Your task to perform on an android device: Do I have any events this weekend? Image 0: 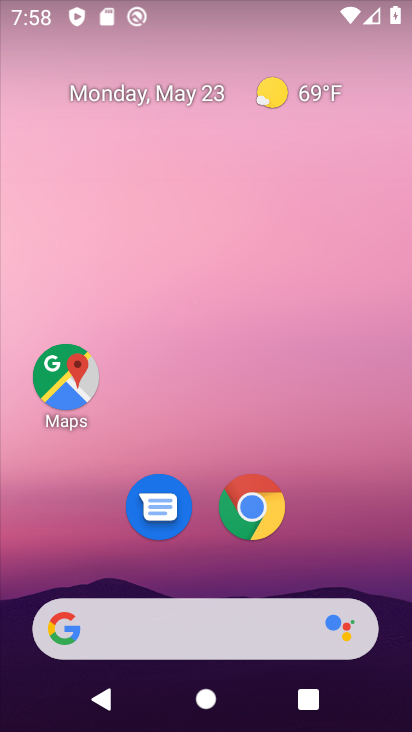
Step 0: drag from (354, 582) to (377, 2)
Your task to perform on an android device: Do I have any events this weekend? Image 1: 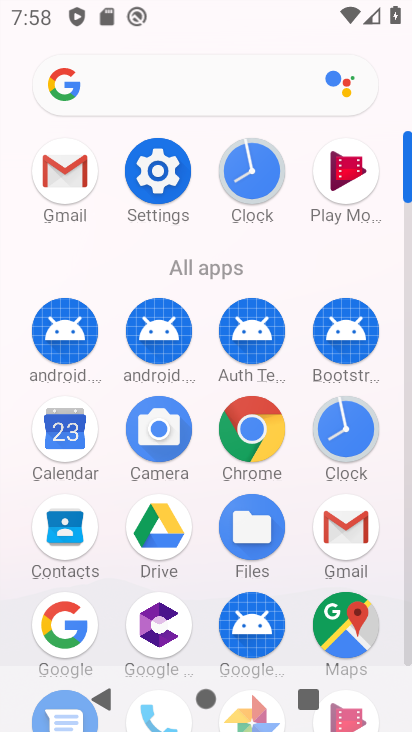
Step 1: click (73, 430)
Your task to perform on an android device: Do I have any events this weekend? Image 2: 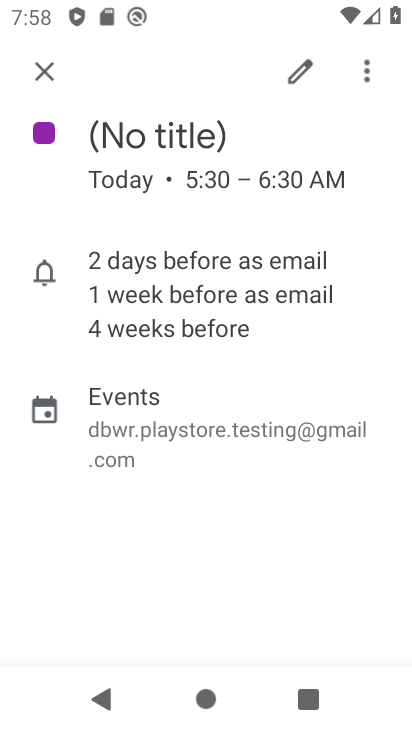
Step 2: click (34, 75)
Your task to perform on an android device: Do I have any events this weekend? Image 3: 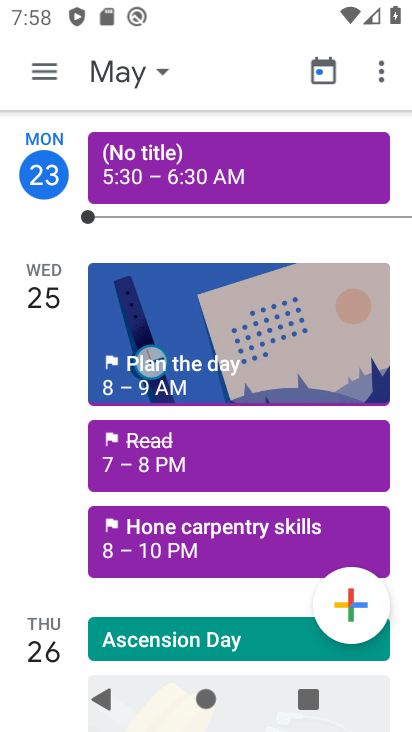
Step 3: click (50, 70)
Your task to perform on an android device: Do I have any events this weekend? Image 4: 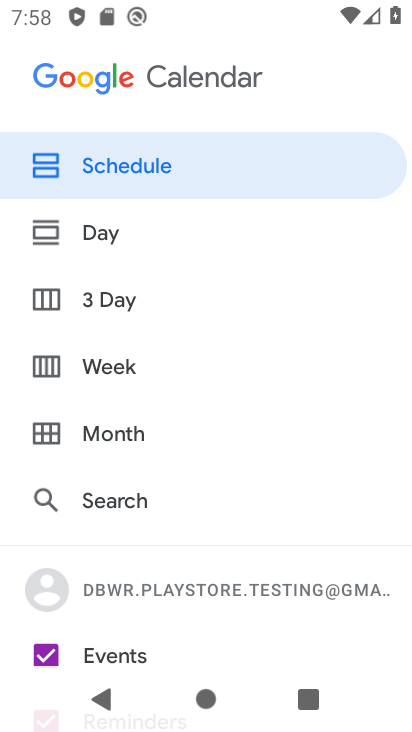
Step 4: drag from (62, 514) to (61, 215)
Your task to perform on an android device: Do I have any events this weekend? Image 5: 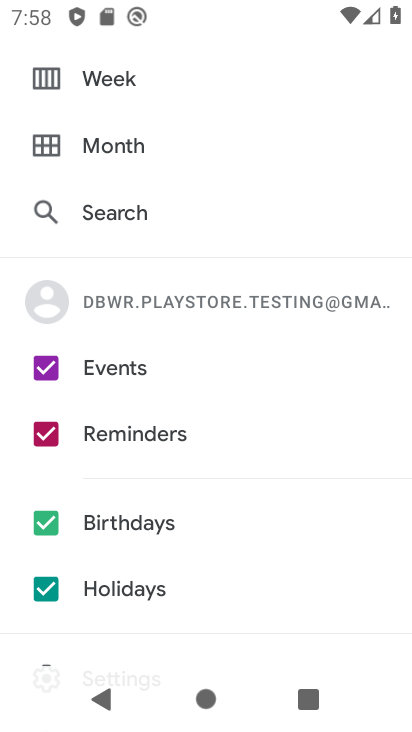
Step 5: click (38, 583)
Your task to perform on an android device: Do I have any events this weekend? Image 6: 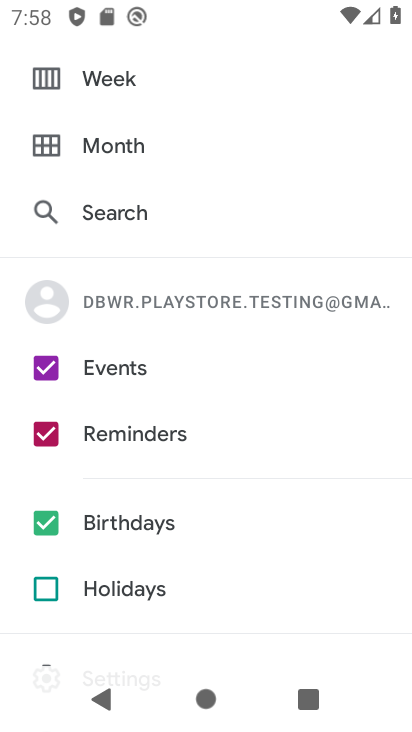
Step 6: click (39, 514)
Your task to perform on an android device: Do I have any events this weekend? Image 7: 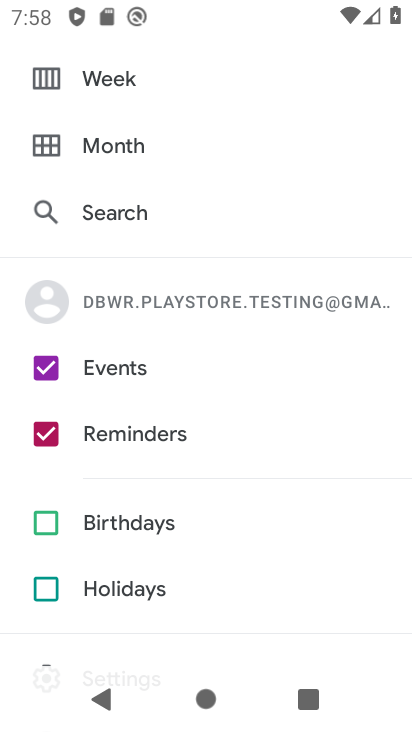
Step 7: click (40, 436)
Your task to perform on an android device: Do I have any events this weekend? Image 8: 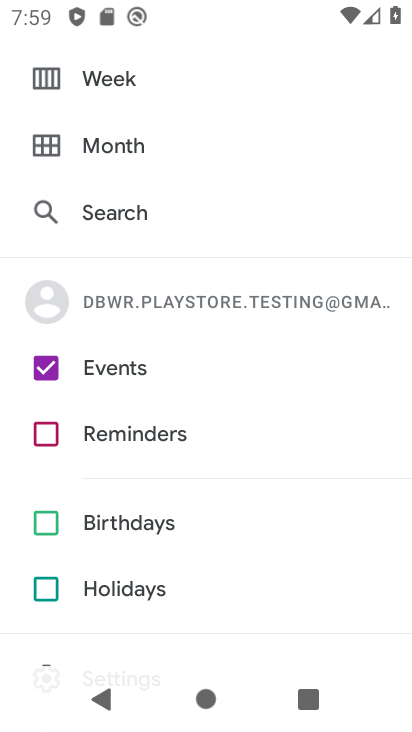
Step 8: click (48, 83)
Your task to perform on an android device: Do I have any events this weekend? Image 9: 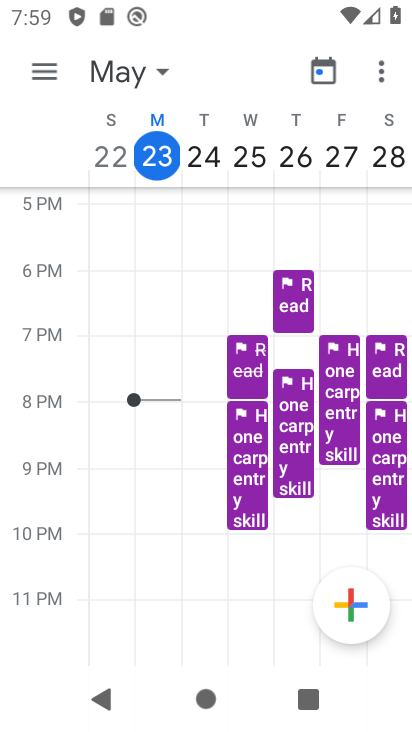
Step 9: click (385, 303)
Your task to perform on an android device: Do I have any events this weekend? Image 10: 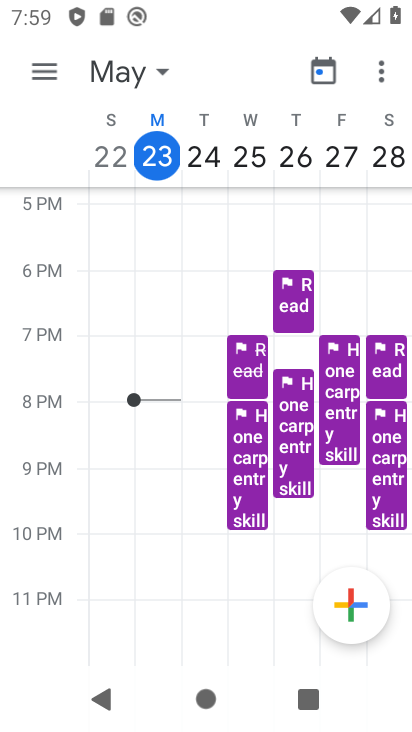
Step 10: click (391, 425)
Your task to perform on an android device: Do I have any events this weekend? Image 11: 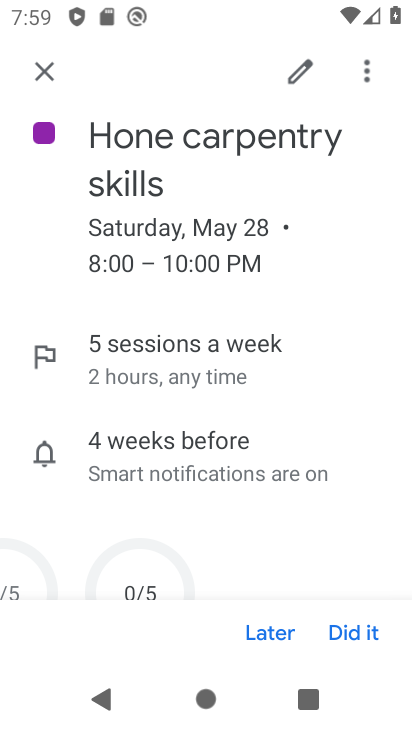
Step 11: task complete